Your task to perform on an android device: Open Chrome and go to the settings page Image 0: 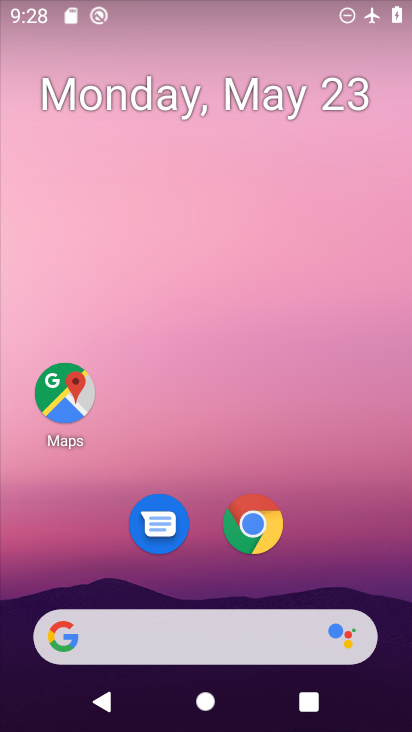
Step 0: click (262, 527)
Your task to perform on an android device: Open Chrome and go to the settings page Image 1: 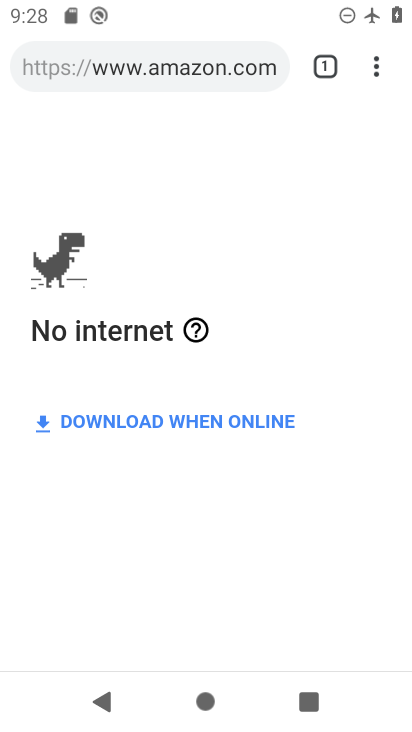
Step 1: click (368, 67)
Your task to perform on an android device: Open Chrome and go to the settings page Image 2: 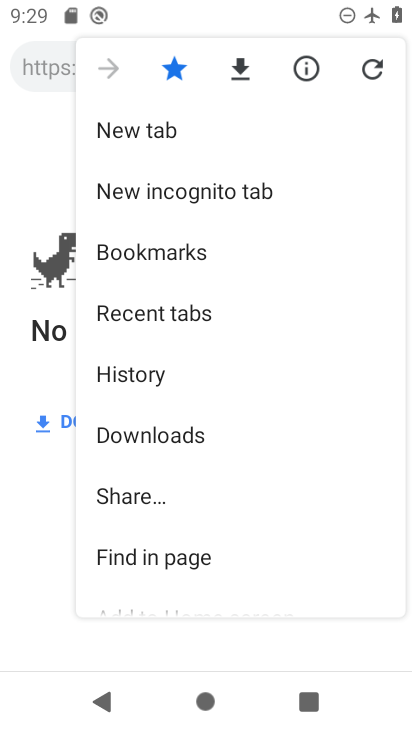
Step 2: drag from (247, 375) to (278, 163)
Your task to perform on an android device: Open Chrome and go to the settings page Image 3: 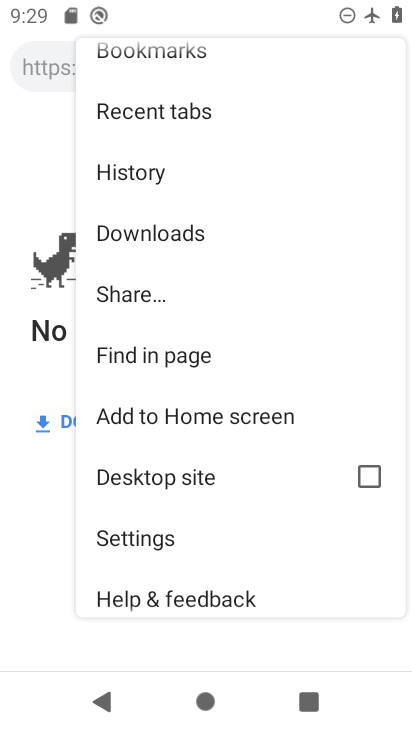
Step 3: click (172, 532)
Your task to perform on an android device: Open Chrome and go to the settings page Image 4: 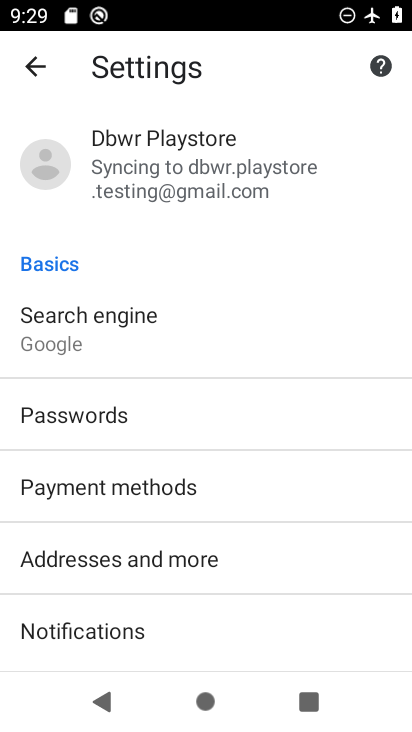
Step 4: task complete